Your task to perform on an android device: What's on Reddit this week Image 0: 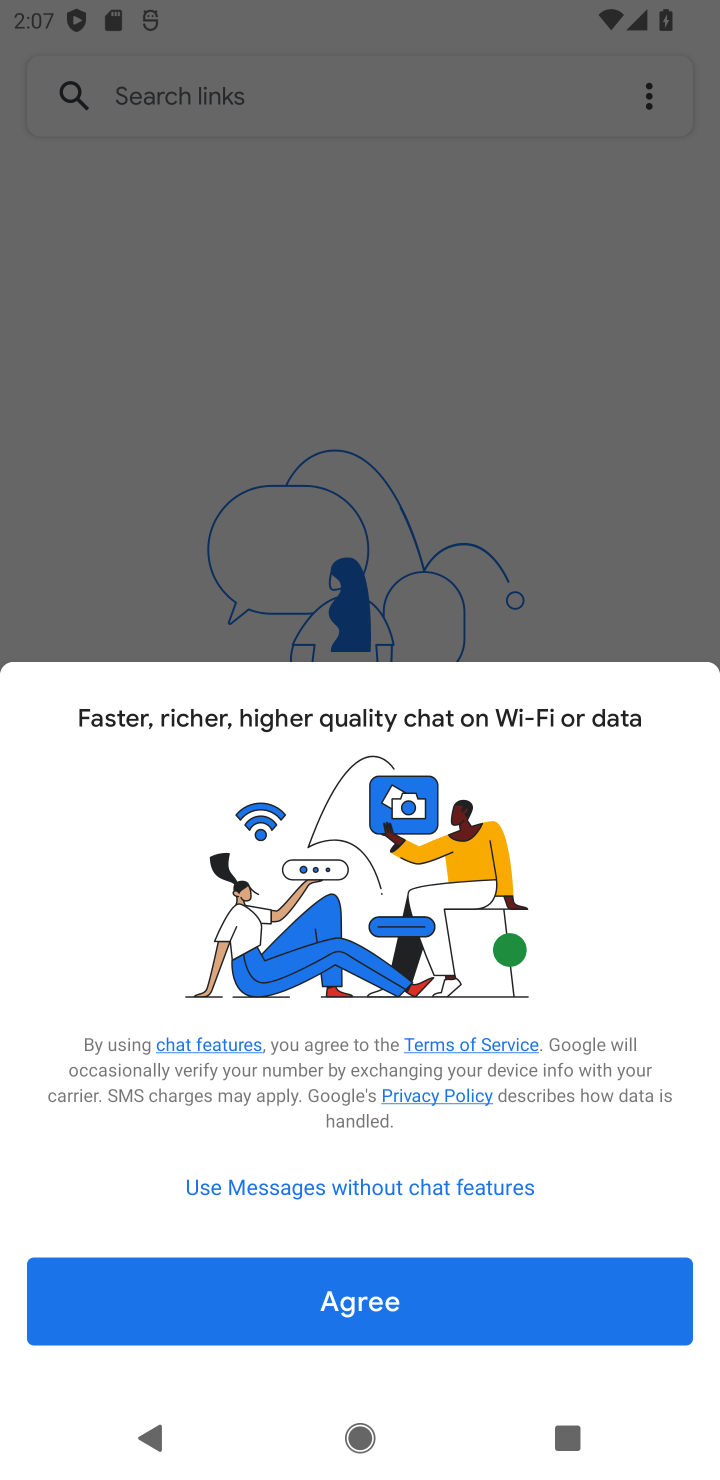
Step 0: press home button
Your task to perform on an android device: What's on Reddit this week Image 1: 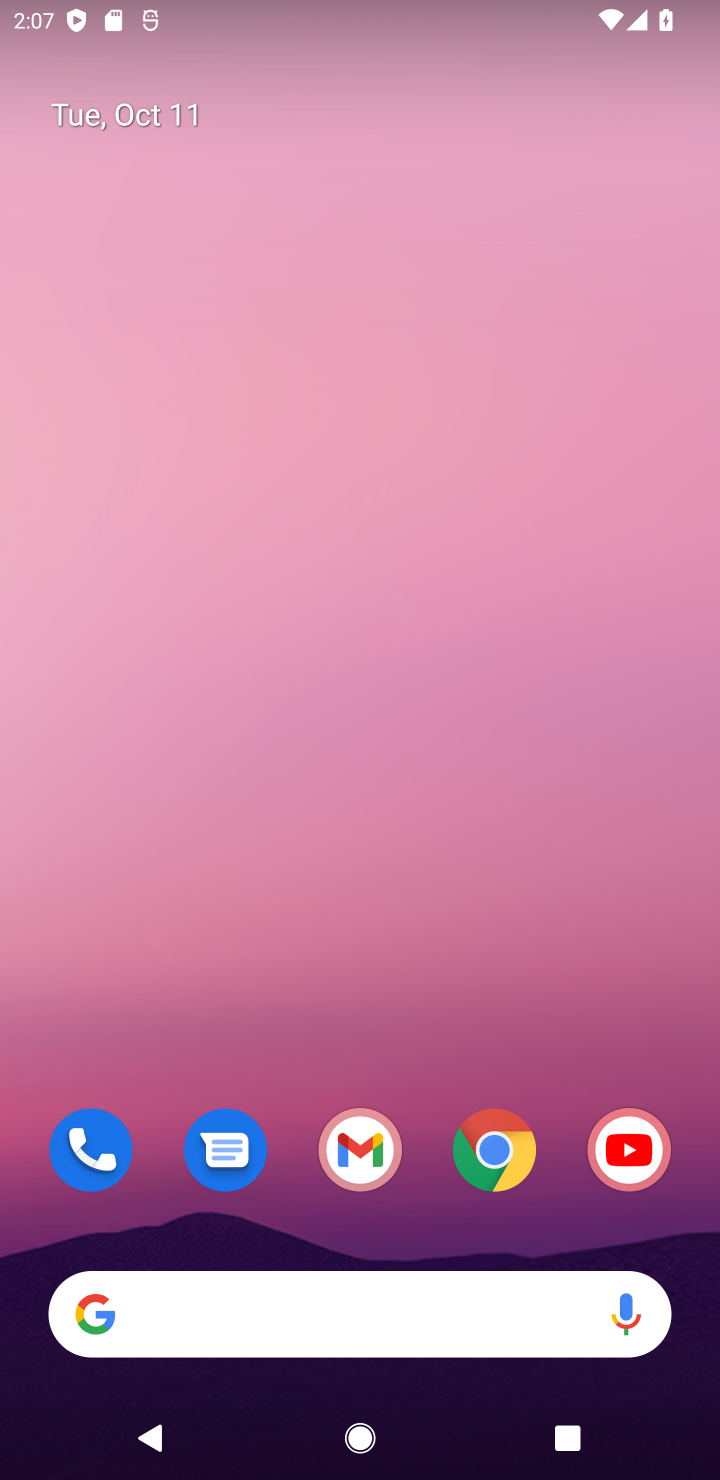
Step 1: drag from (369, 882) to (369, 403)
Your task to perform on an android device: What's on Reddit this week Image 2: 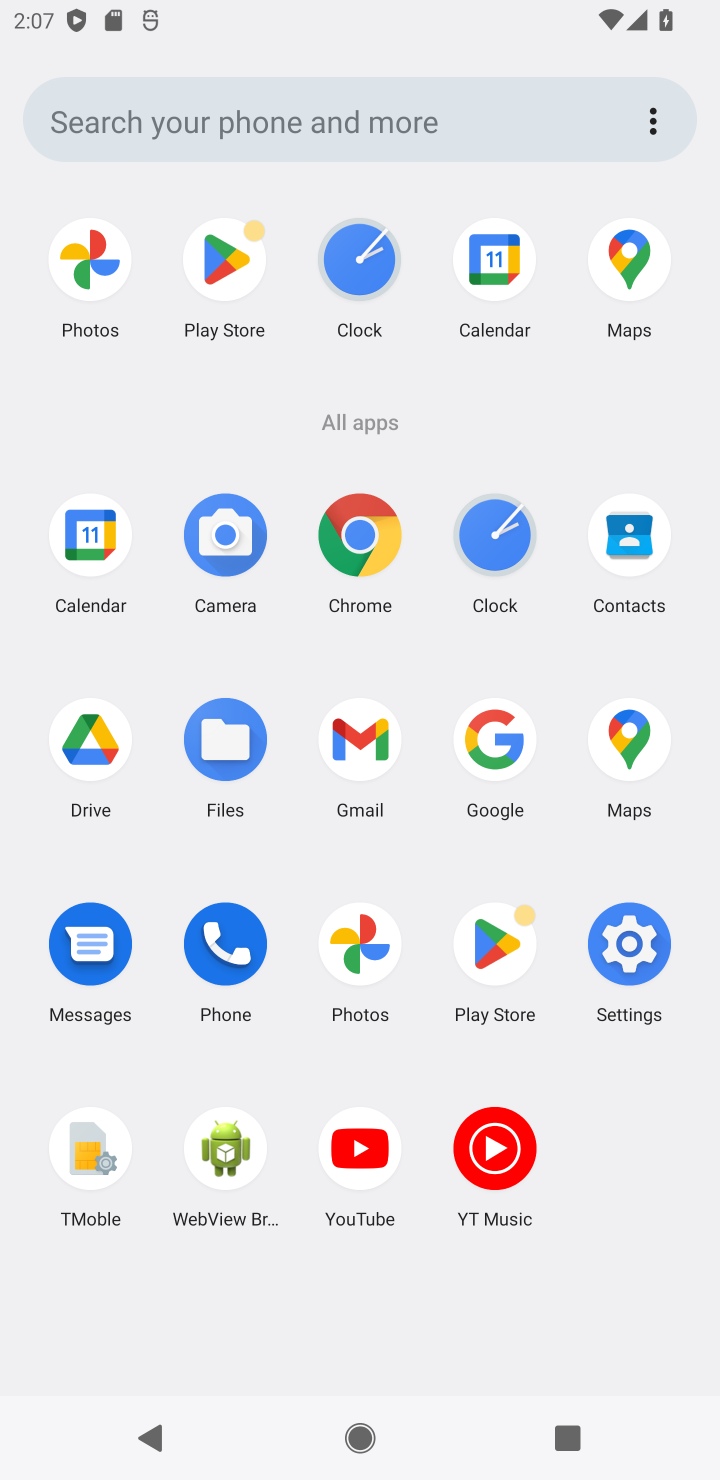
Step 2: click (506, 734)
Your task to perform on an android device: What's on Reddit this week Image 3: 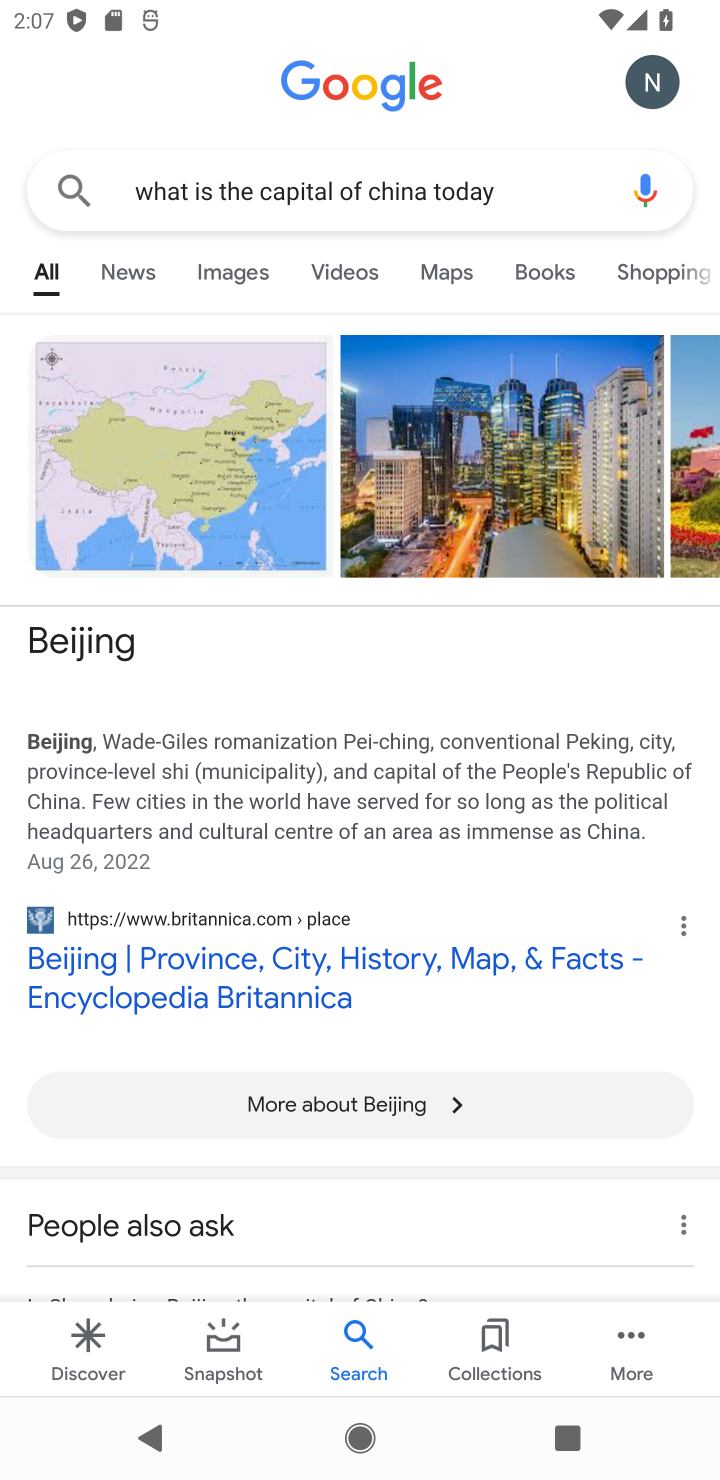
Step 3: click (275, 192)
Your task to perform on an android device: What's on Reddit this week Image 4: 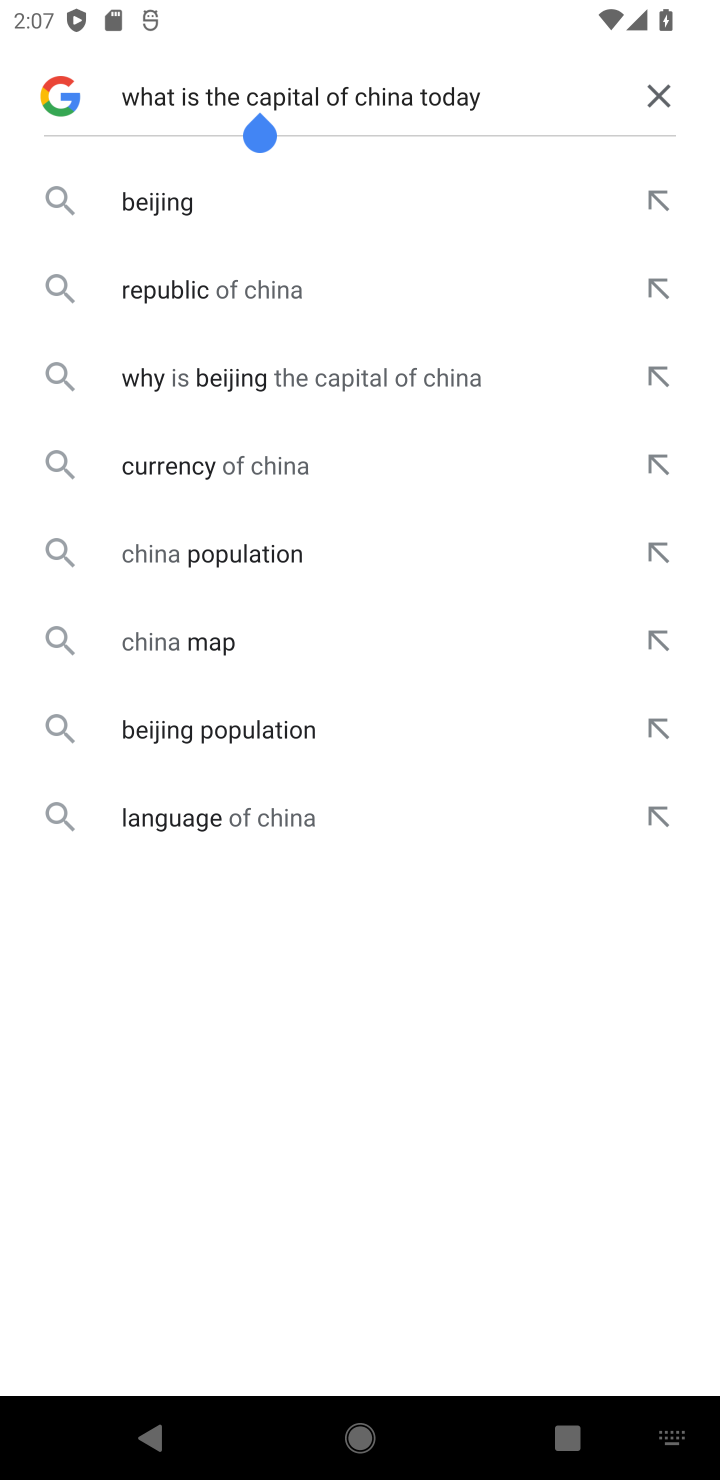
Step 4: click (652, 100)
Your task to perform on an android device: What's on Reddit this week Image 5: 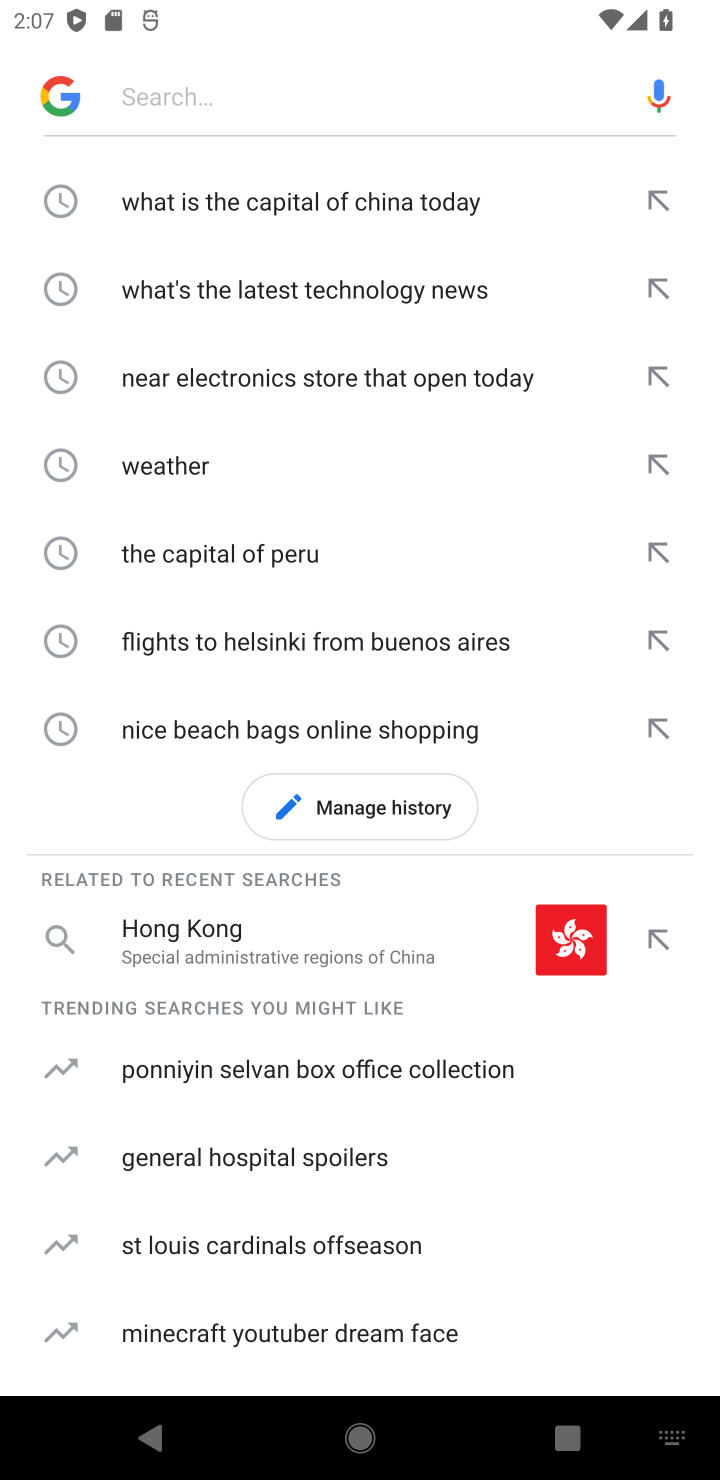
Step 5: type "What's on Reddit this week"
Your task to perform on an android device: What's on Reddit this week Image 6: 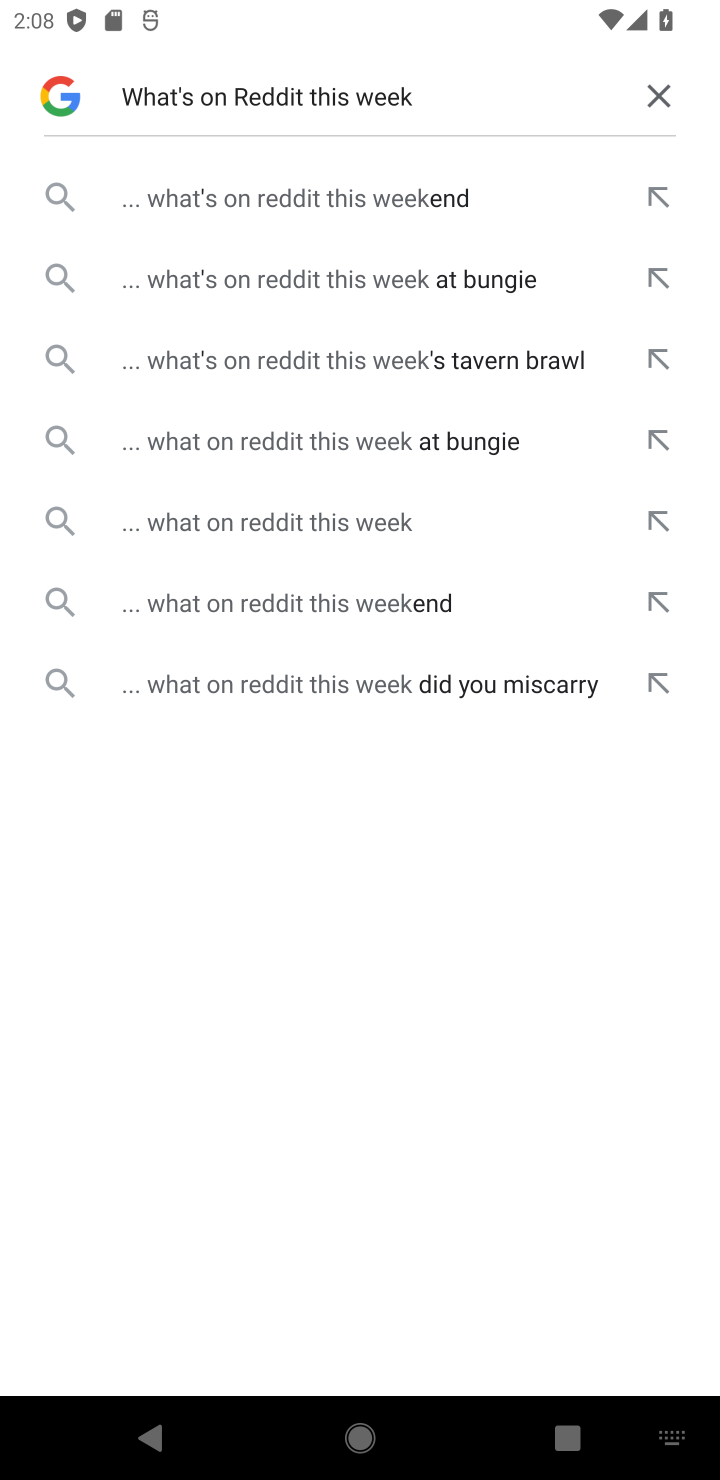
Step 6: click (258, 204)
Your task to perform on an android device: What's on Reddit this week Image 7: 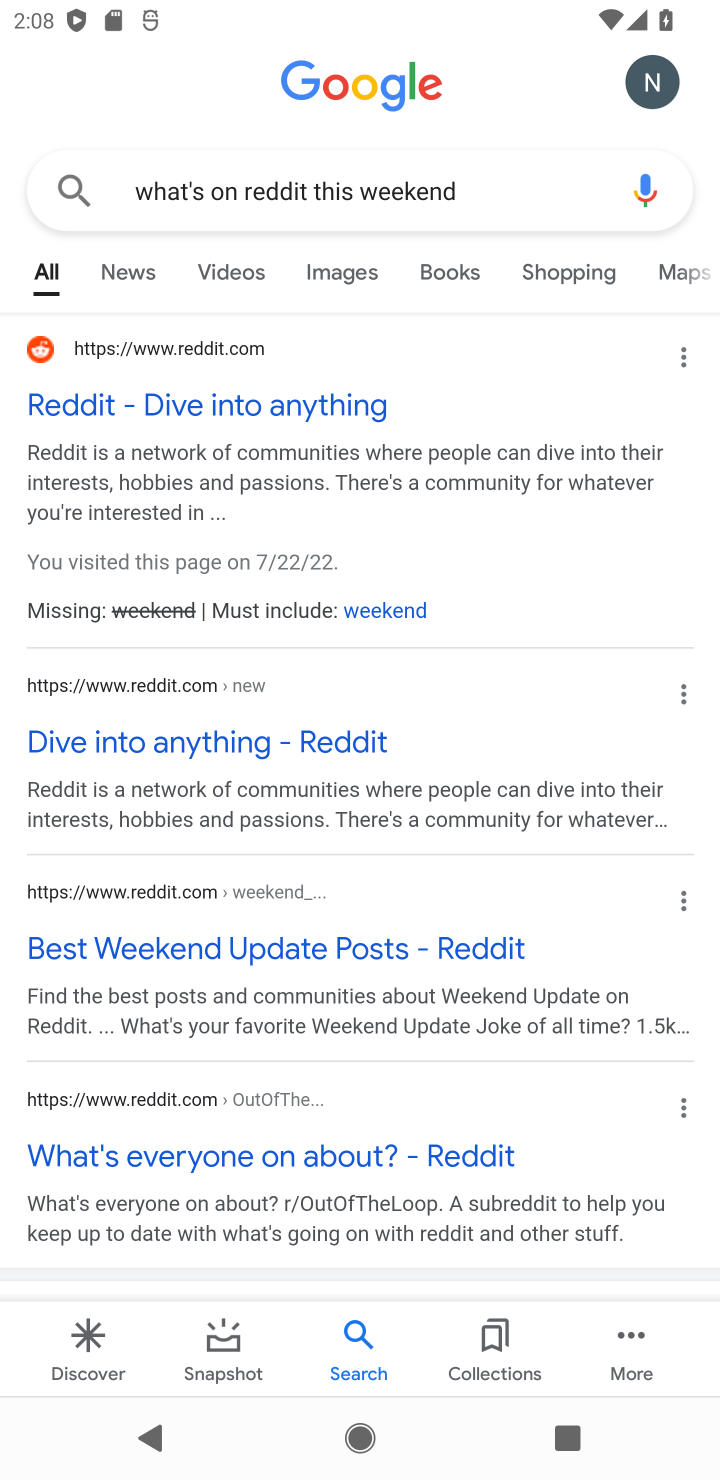
Step 7: click (201, 403)
Your task to perform on an android device: What's on Reddit this week Image 8: 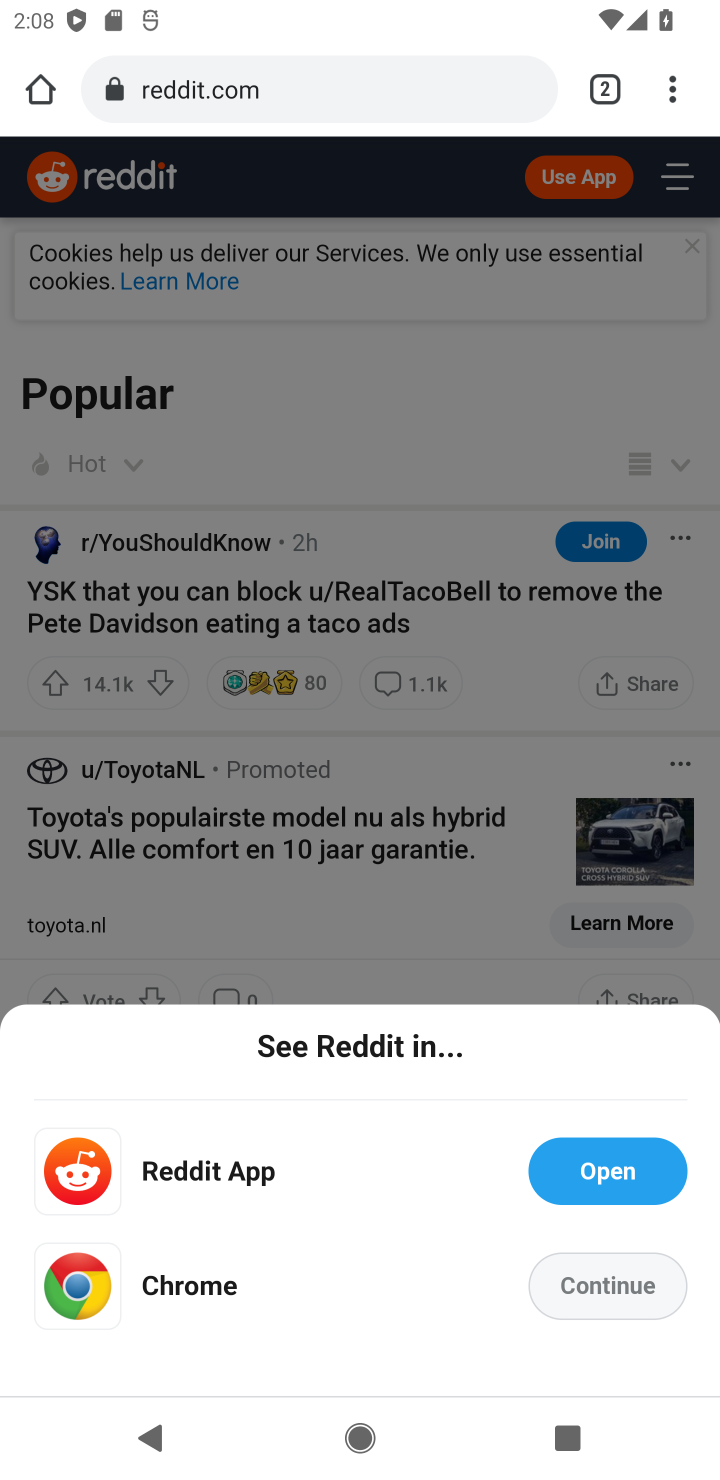
Step 8: task complete